Your task to perform on an android device: choose inbox layout in the gmail app Image 0: 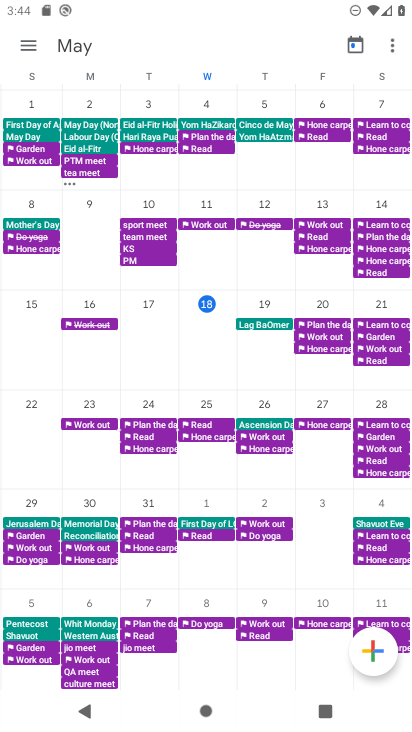
Step 0: press home button
Your task to perform on an android device: choose inbox layout in the gmail app Image 1: 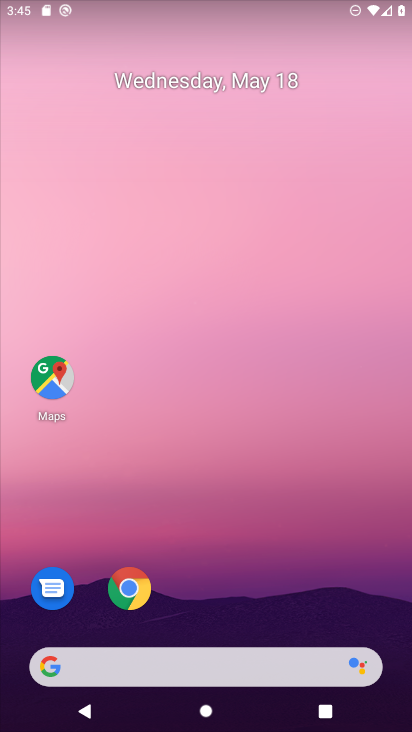
Step 1: drag from (221, 592) to (210, 99)
Your task to perform on an android device: choose inbox layout in the gmail app Image 2: 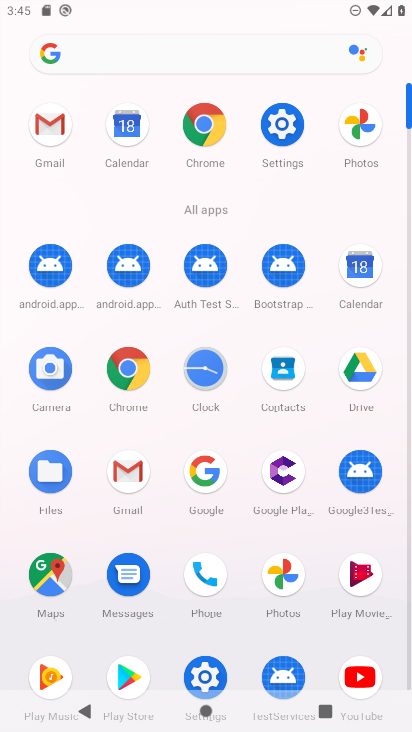
Step 2: click (284, 127)
Your task to perform on an android device: choose inbox layout in the gmail app Image 3: 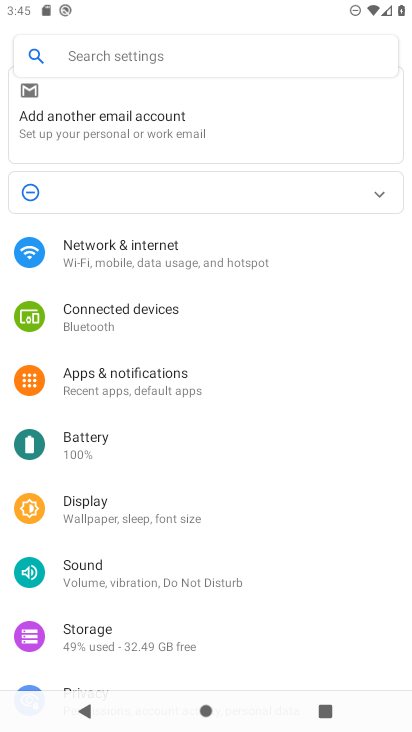
Step 3: press home button
Your task to perform on an android device: choose inbox layout in the gmail app Image 4: 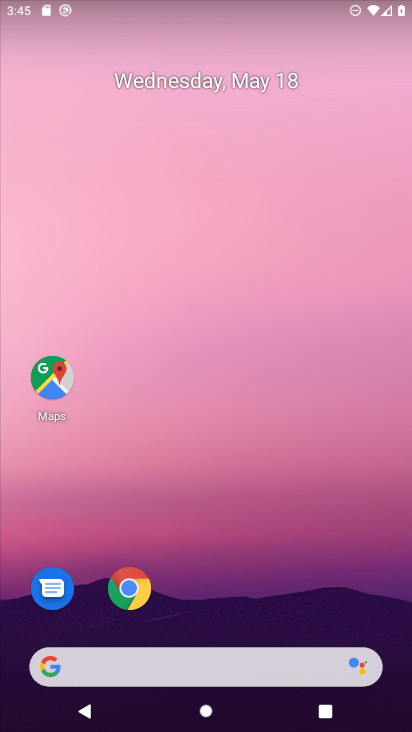
Step 4: drag from (300, 563) to (212, 158)
Your task to perform on an android device: choose inbox layout in the gmail app Image 5: 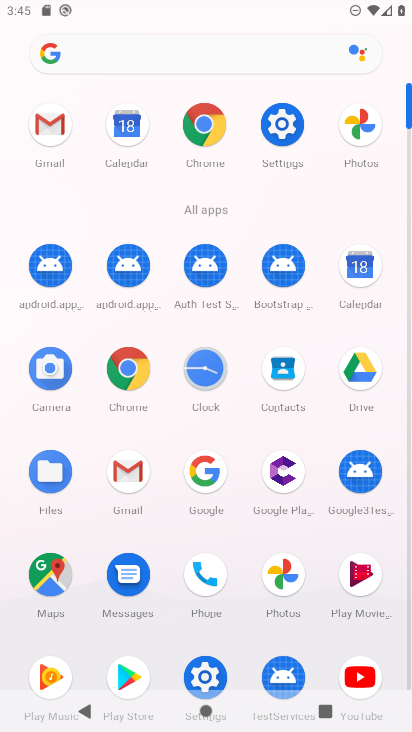
Step 5: click (139, 457)
Your task to perform on an android device: choose inbox layout in the gmail app Image 6: 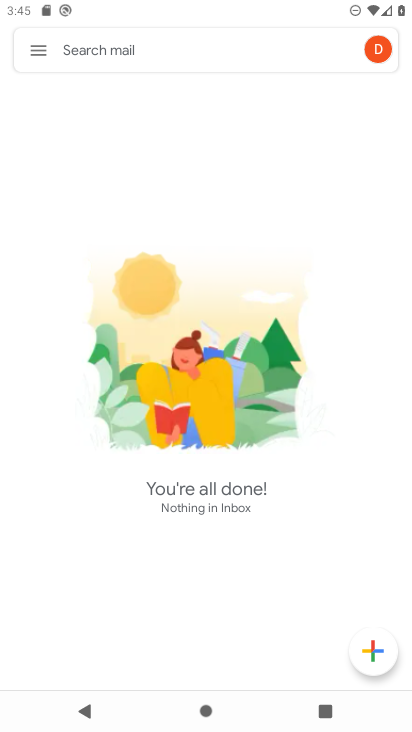
Step 6: click (23, 25)
Your task to perform on an android device: choose inbox layout in the gmail app Image 7: 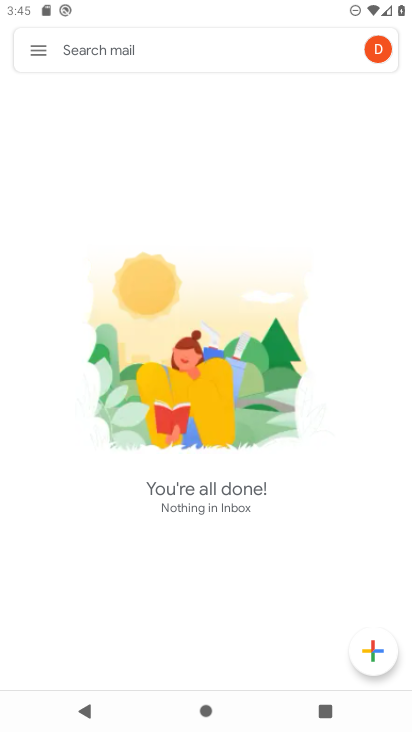
Step 7: click (37, 54)
Your task to perform on an android device: choose inbox layout in the gmail app Image 8: 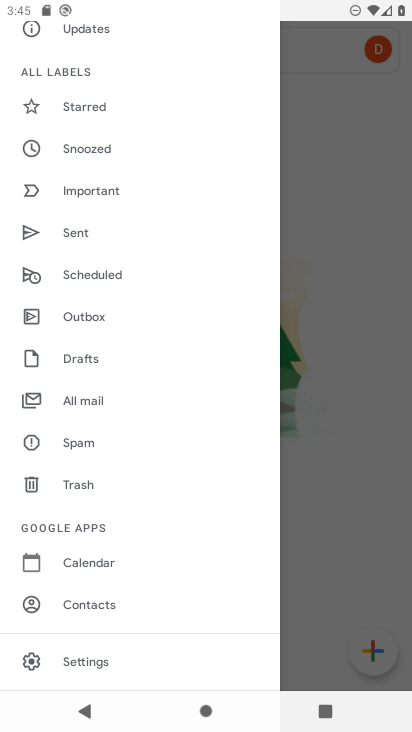
Step 8: drag from (152, 143) to (185, 388)
Your task to perform on an android device: choose inbox layout in the gmail app Image 9: 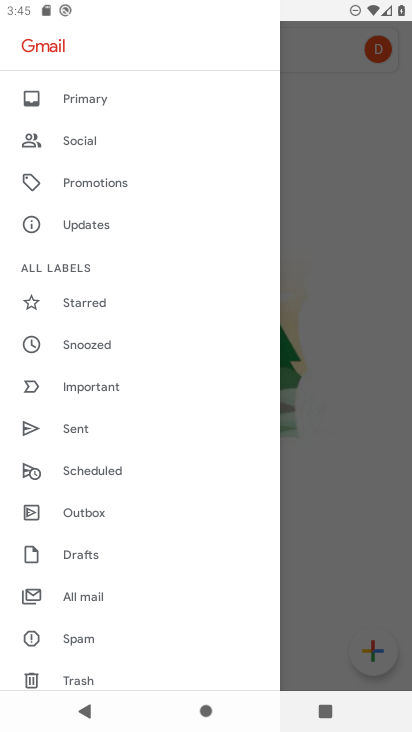
Step 9: click (113, 90)
Your task to perform on an android device: choose inbox layout in the gmail app Image 10: 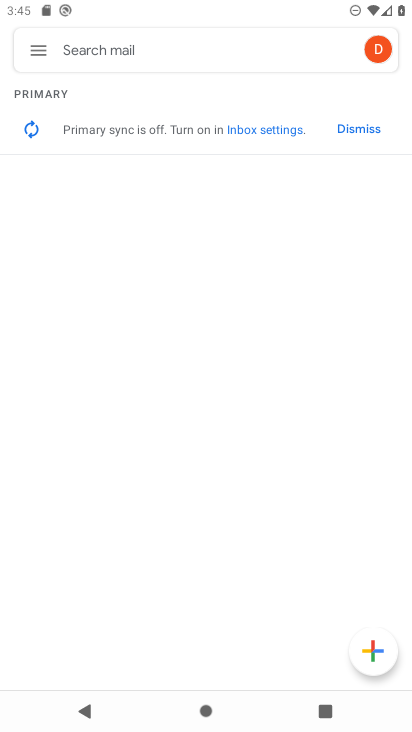
Step 10: task complete